Your task to perform on an android device: Open my contact list Image 0: 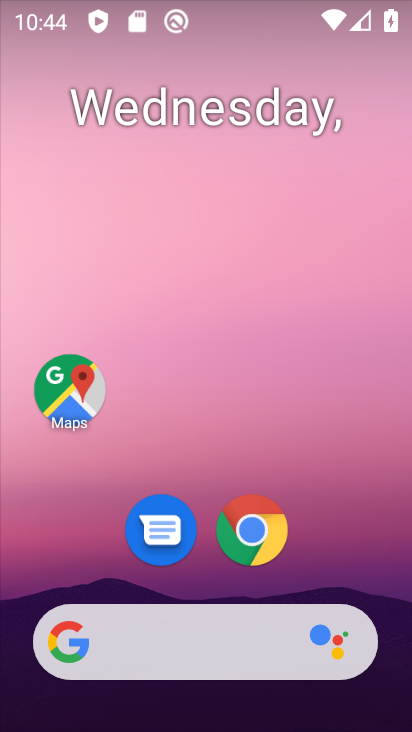
Step 0: drag from (334, 435) to (344, 4)
Your task to perform on an android device: Open my contact list Image 1: 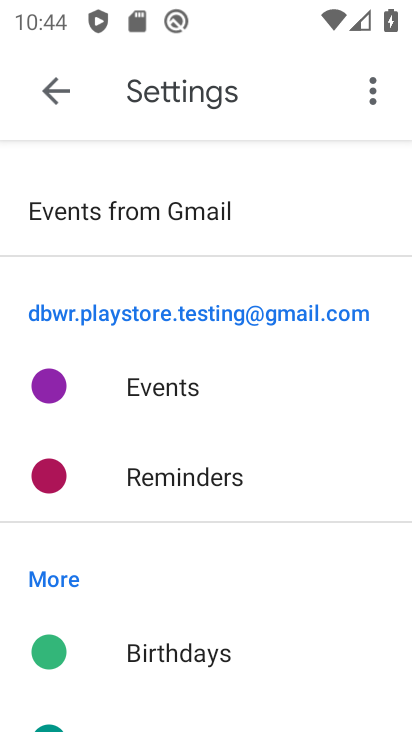
Step 1: press home button
Your task to perform on an android device: Open my contact list Image 2: 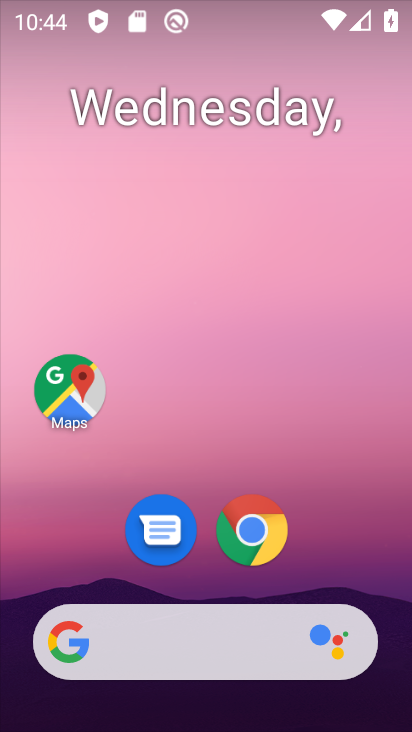
Step 2: drag from (383, 533) to (298, 1)
Your task to perform on an android device: Open my contact list Image 3: 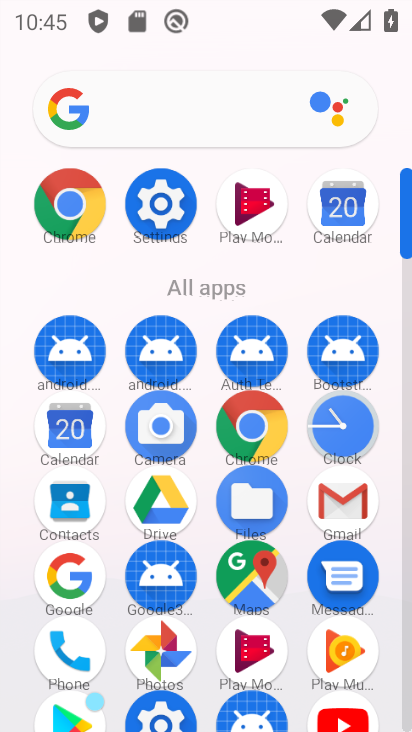
Step 3: click (69, 488)
Your task to perform on an android device: Open my contact list Image 4: 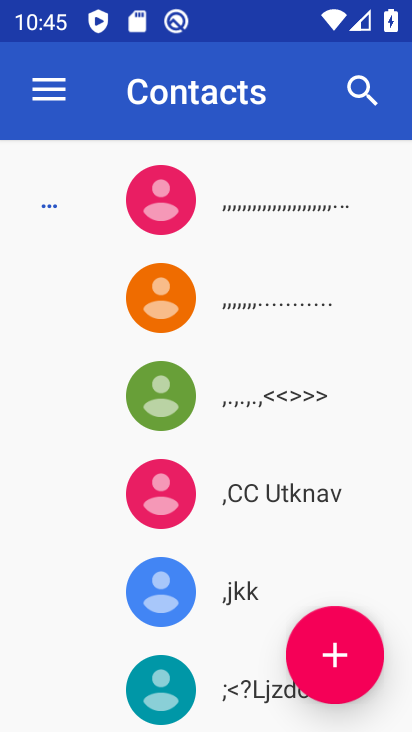
Step 4: click (329, 662)
Your task to perform on an android device: Open my contact list Image 5: 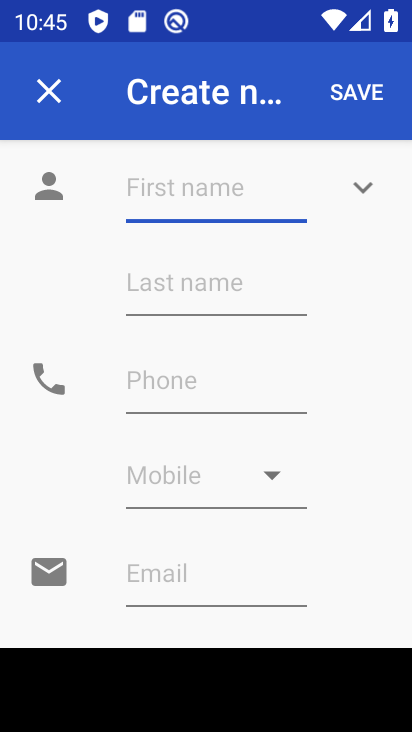
Step 5: type "g"
Your task to perform on an android device: Open my contact list Image 6: 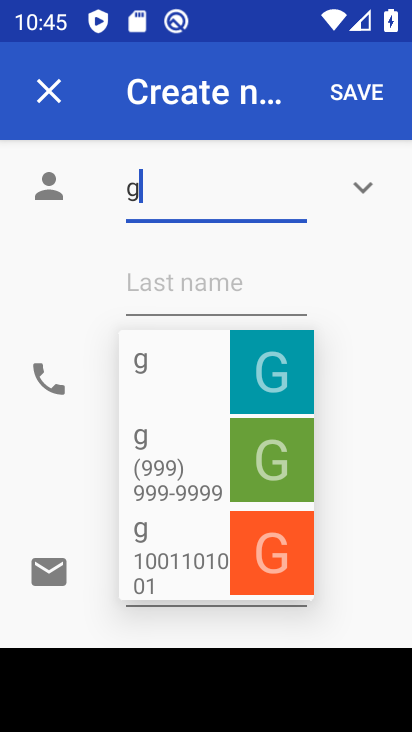
Step 6: click (139, 389)
Your task to perform on an android device: Open my contact list Image 7: 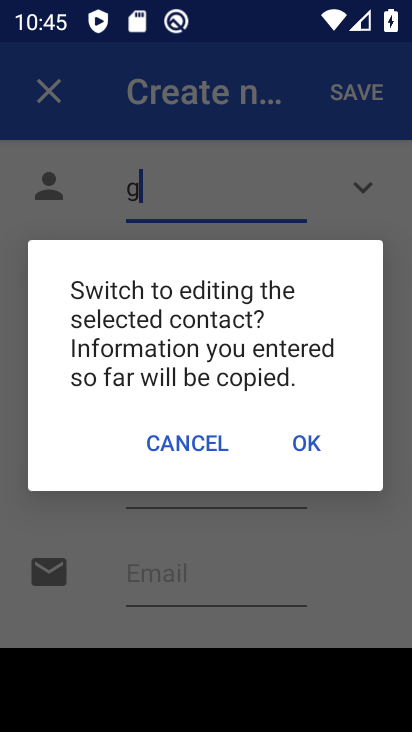
Step 7: click (340, 398)
Your task to perform on an android device: Open my contact list Image 8: 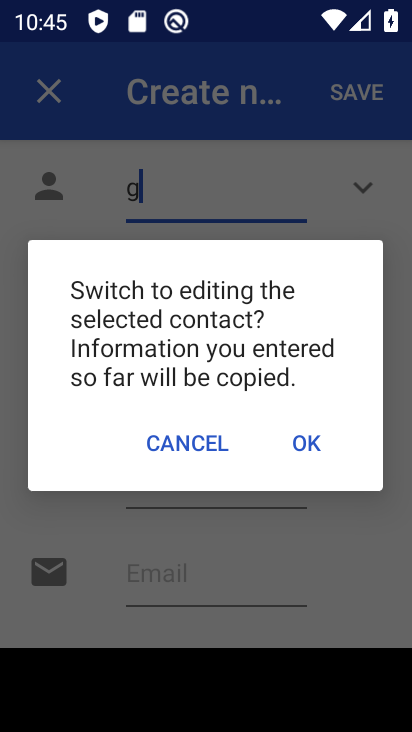
Step 8: click (191, 451)
Your task to perform on an android device: Open my contact list Image 9: 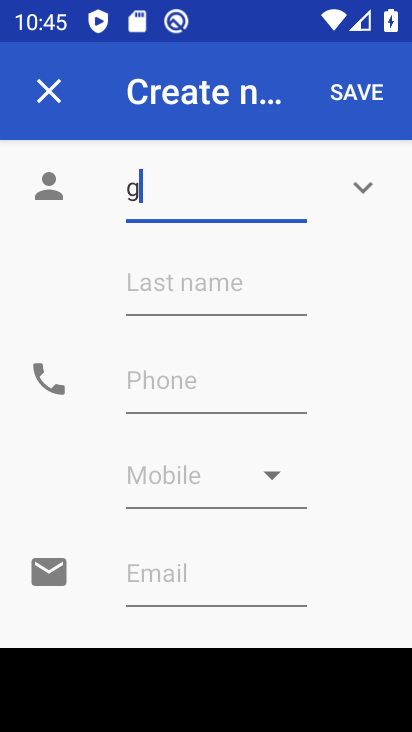
Step 9: click (198, 431)
Your task to perform on an android device: Open my contact list Image 10: 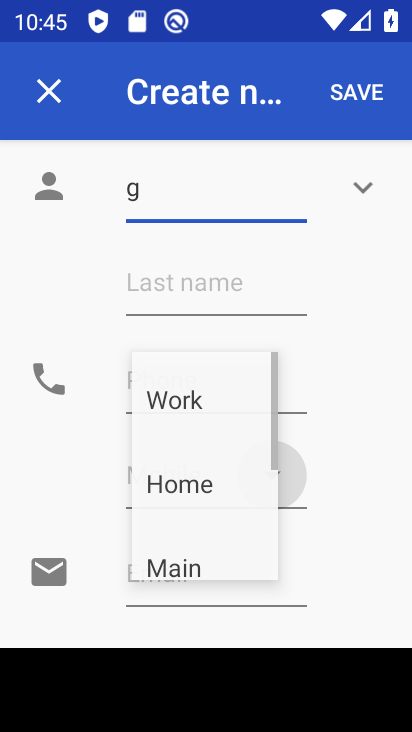
Step 10: click (204, 392)
Your task to perform on an android device: Open my contact list Image 11: 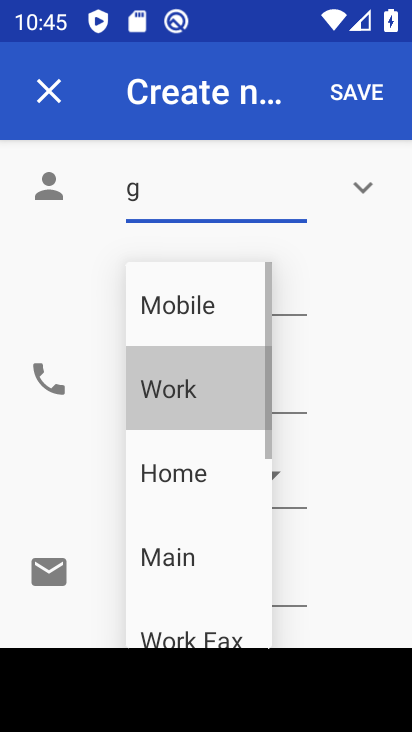
Step 11: click (204, 392)
Your task to perform on an android device: Open my contact list Image 12: 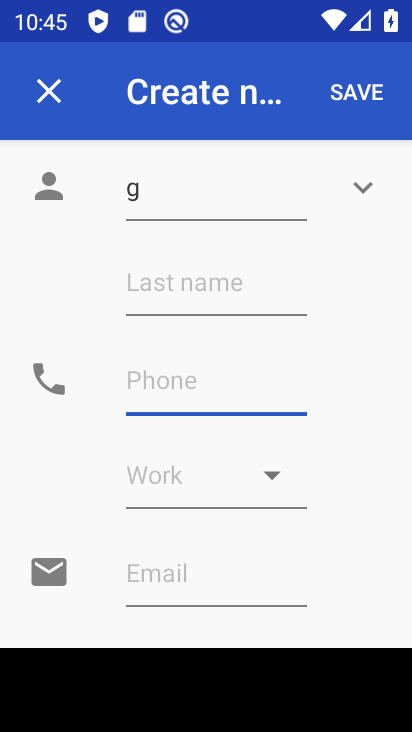
Step 12: click (266, 401)
Your task to perform on an android device: Open my contact list Image 13: 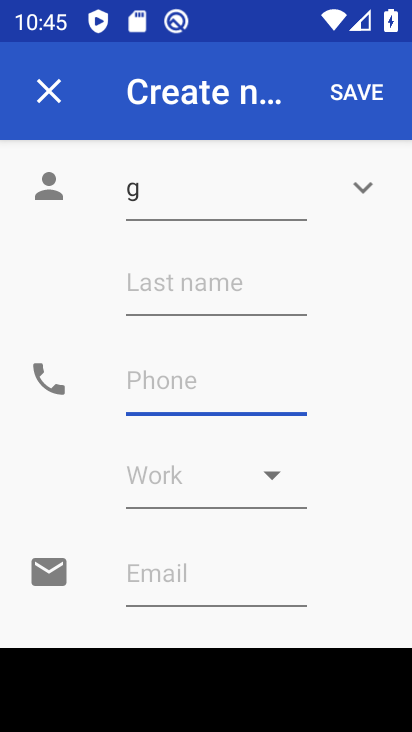
Step 13: click (282, 483)
Your task to perform on an android device: Open my contact list Image 14: 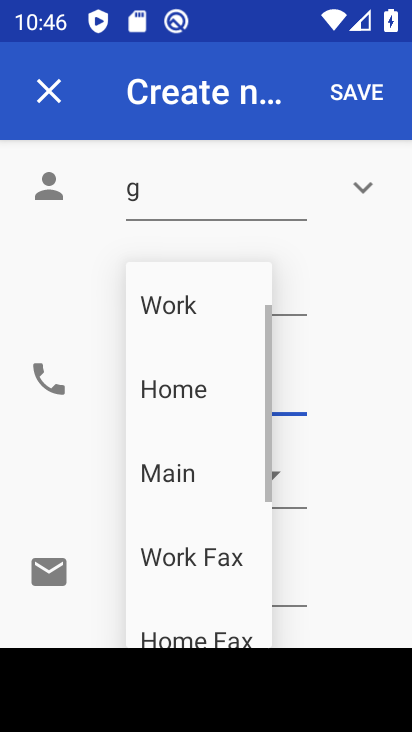
Step 14: click (375, 456)
Your task to perform on an android device: Open my contact list Image 15: 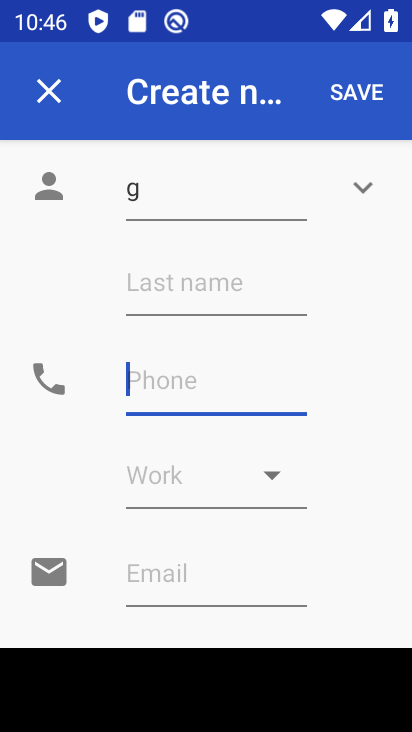
Step 15: click (265, 390)
Your task to perform on an android device: Open my contact list Image 16: 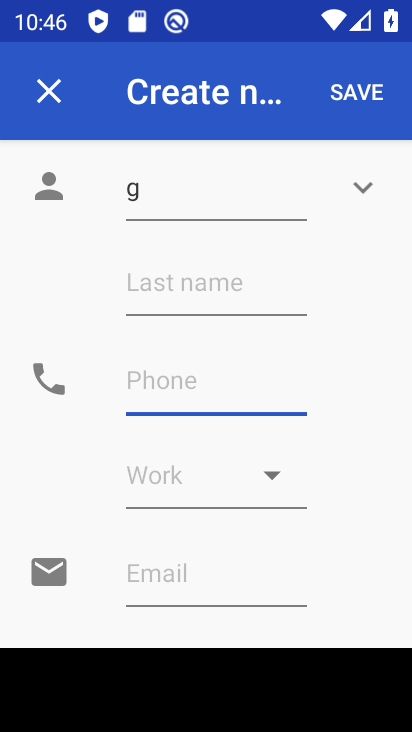
Step 16: type "09"
Your task to perform on an android device: Open my contact list Image 17: 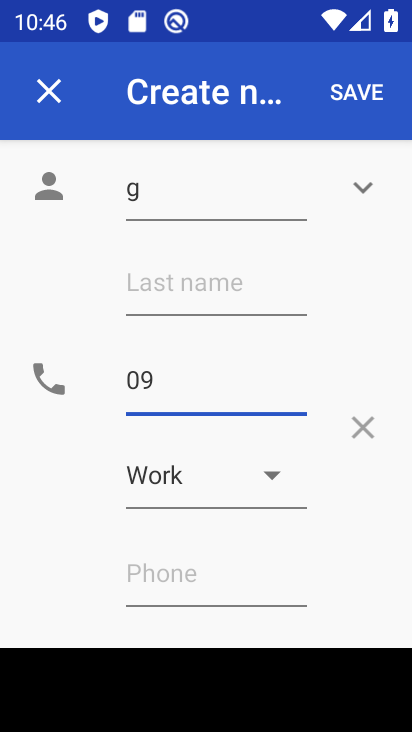
Step 17: click (380, 72)
Your task to perform on an android device: Open my contact list Image 18: 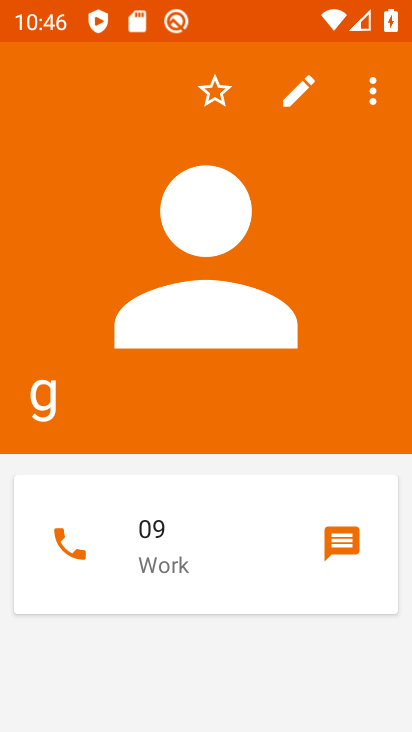
Step 18: task complete